Your task to perform on an android device: choose inbox layout in the gmail app Image 0: 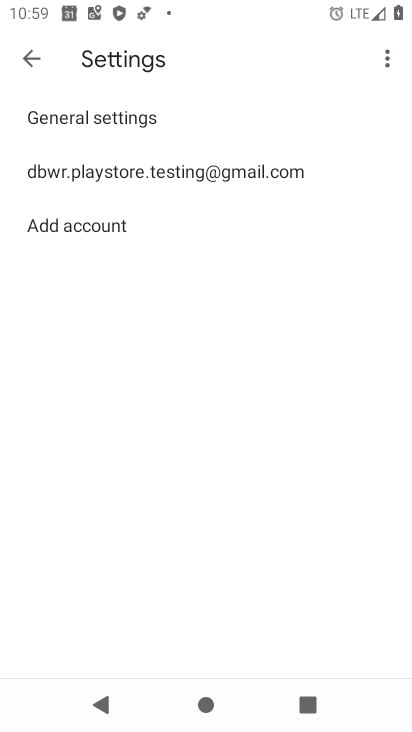
Step 0: press home button
Your task to perform on an android device: choose inbox layout in the gmail app Image 1: 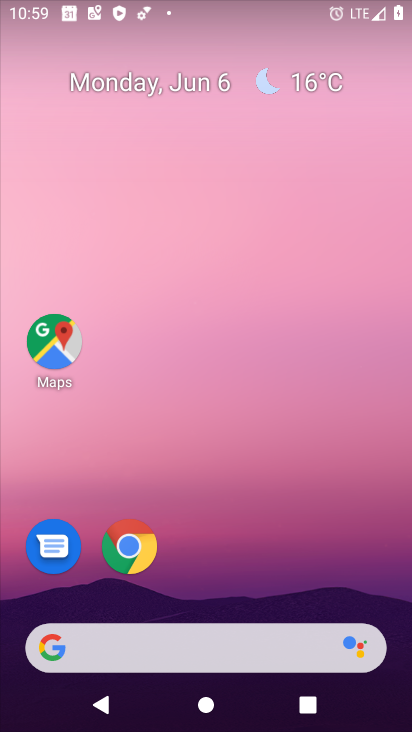
Step 1: drag from (203, 571) to (283, 60)
Your task to perform on an android device: choose inbox layout in the gmail app Image 2: 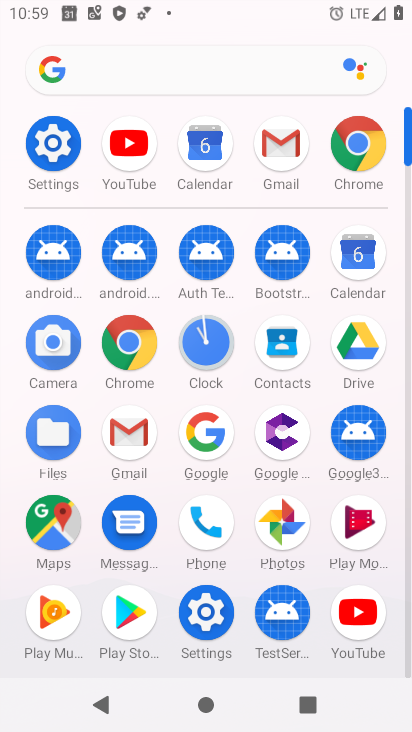
Step 2: click (119, 436)
Your task to perform on an android device: choose inbox layout in the gmail app Image 3: 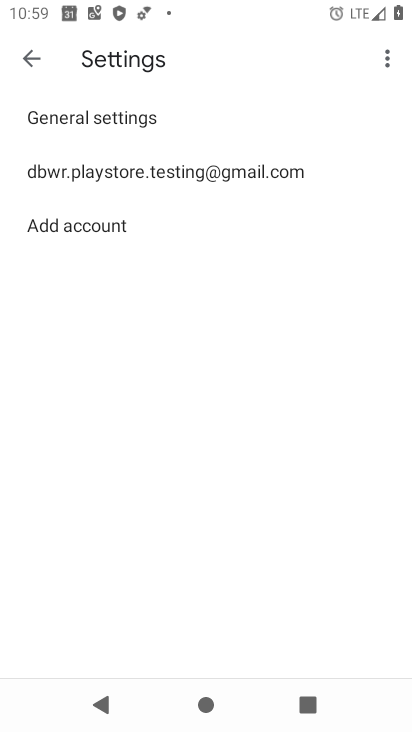
Step 3: click (101, 164)
Your task to perform on an android device: choose inbox layout in the gmail app Image 4: 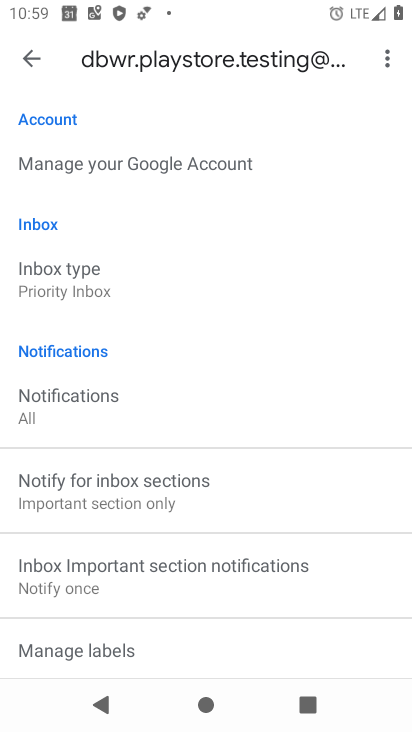
Step 4: click (111, 299)
Your task to perform on an android device: choose inbox layout in the gmail app Image 5: 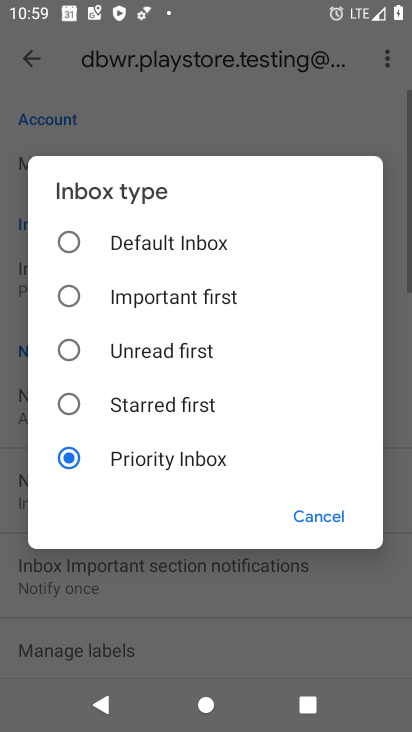
Step 5: click (137, 244)
Your task to perform on an android device: choose inbox layout in the gmail app Image 6: 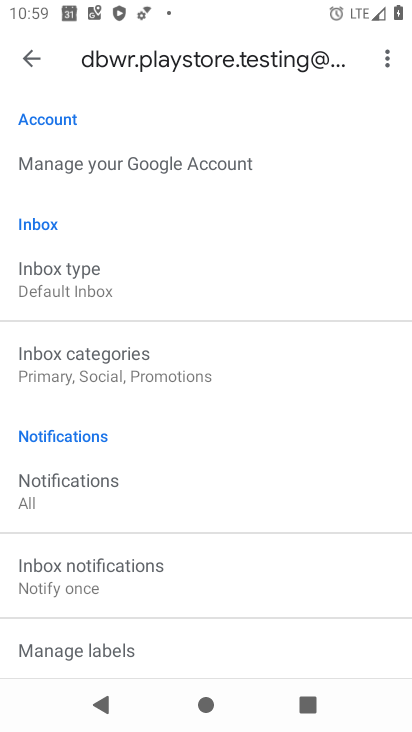
Step 6: task complete